Your task to perform on an android device: change your default location settings in chrome Image 0: 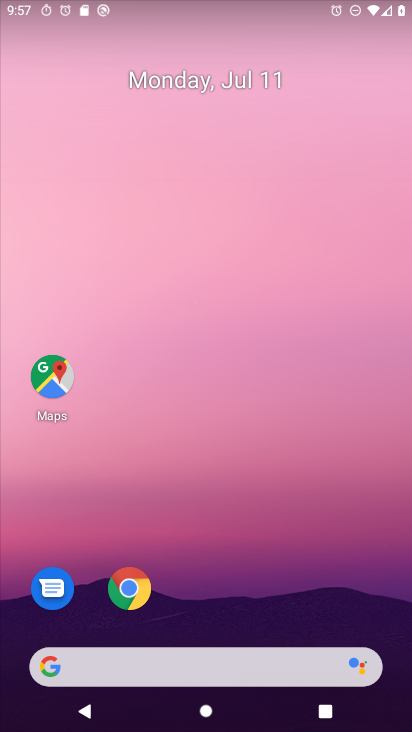
Step 0: click (135, 592)
Your task to perform on an android device: change your default location settings in chrome Image 1: 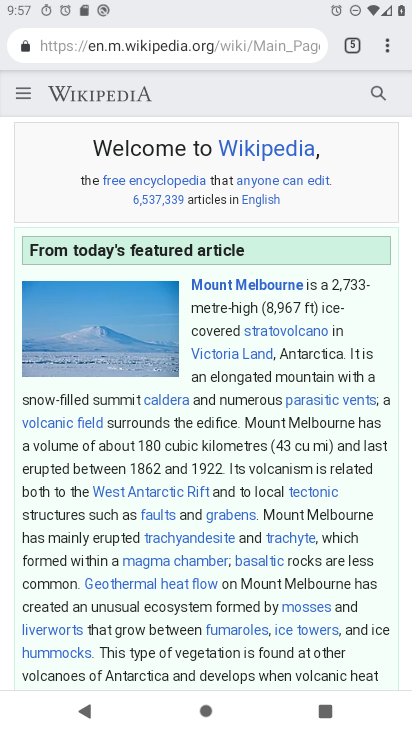
Step 1: drag from (385, 39) to (265, 595)
Your task to perform on an android device: change your default location settings in chrome Image 2: 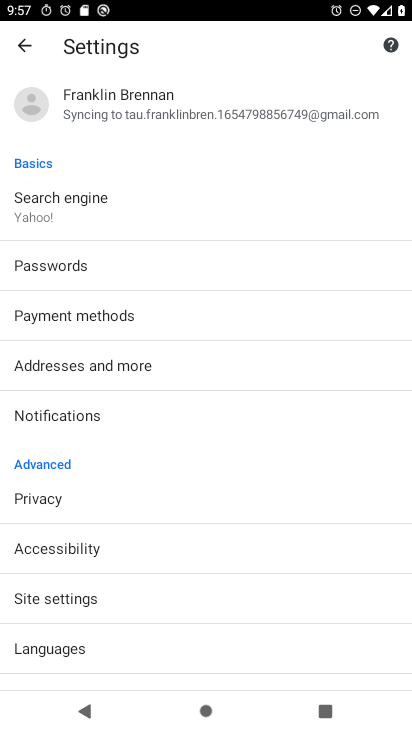
Step 2: click (92, 601)
Your task to perform on an android device: change your default location settings in chrome Image 3: 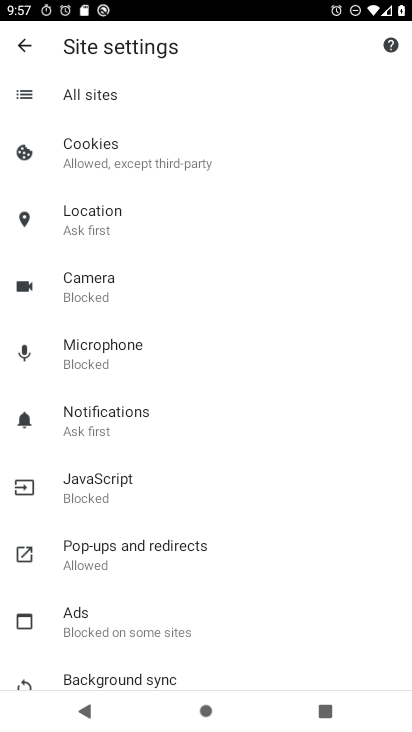
Step 3: click (97, 218)
Your task to perform on an android device: change your default location settings in chrome Image 4: 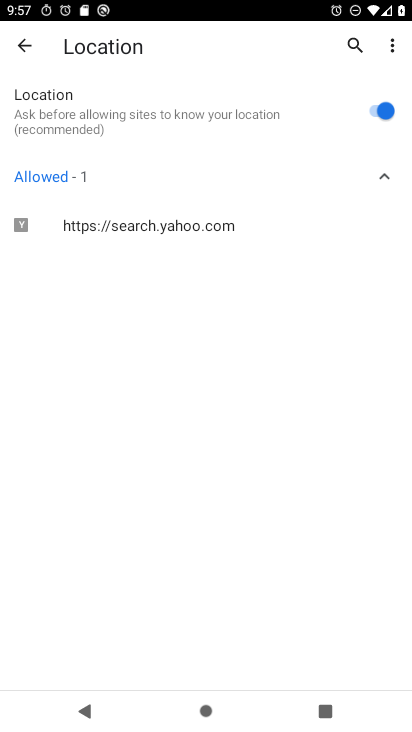
Step 4: click (375, 104)
Your task to perform on an android device: change your default location settings in chrome Image 5: 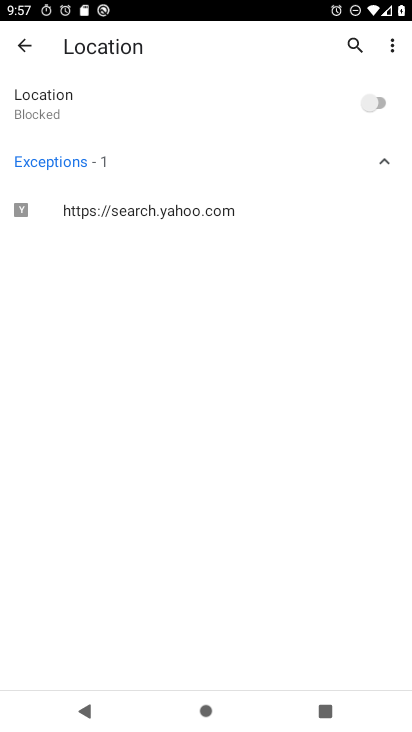
Step 5: task complete